Your task to perform on an android device: turn on wifi Image 0: 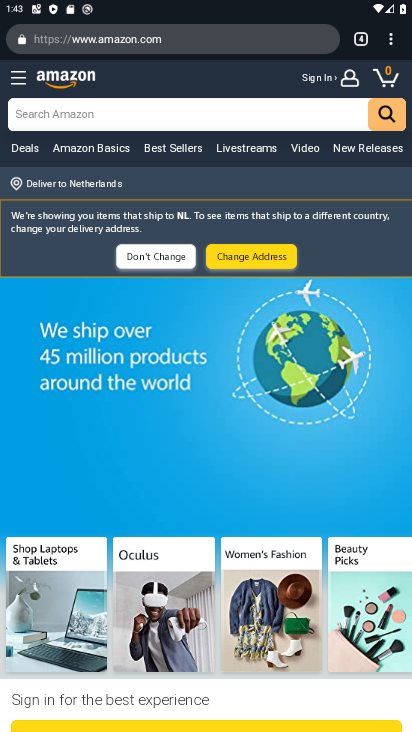
Step 0: press home button
Your task to perform on an android device: turn on wifi Image 1: 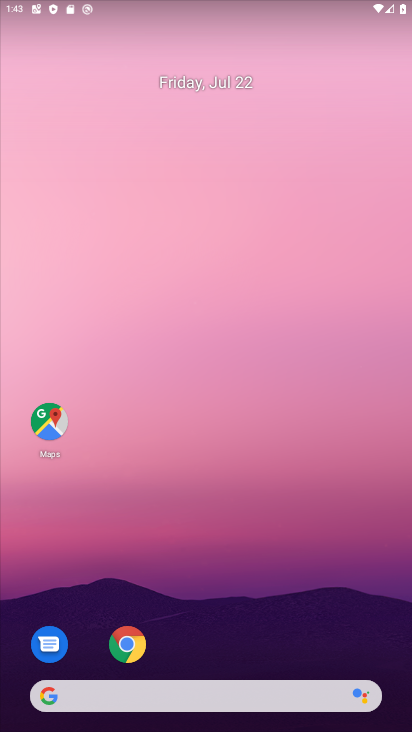
Step 1: drag from (144, 4) to (190, 359)
Your task to perform on an android device: turn on wifi Image 2: 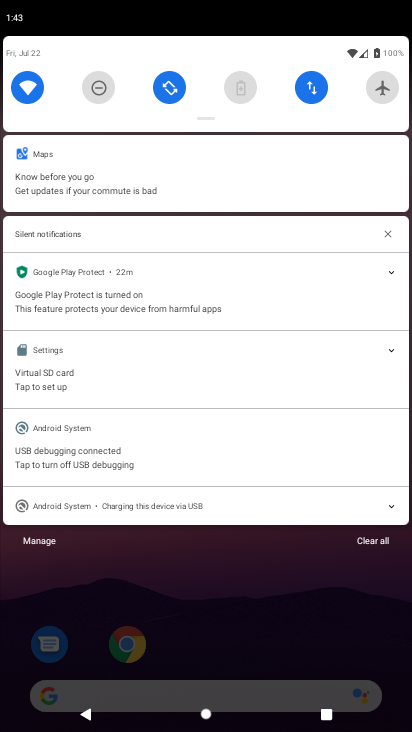
Step 2: click (27, 79)
Your task to perform on an android device: turn on wifi Image 3: 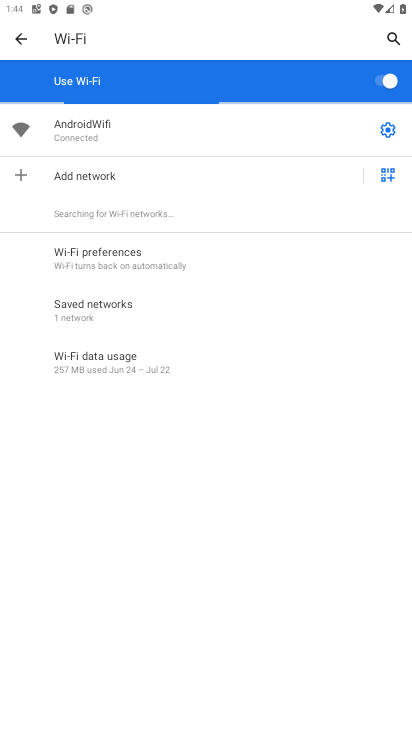
Step 3: task complete